Your task to perform on an android device: turn notification dots off Image 0: 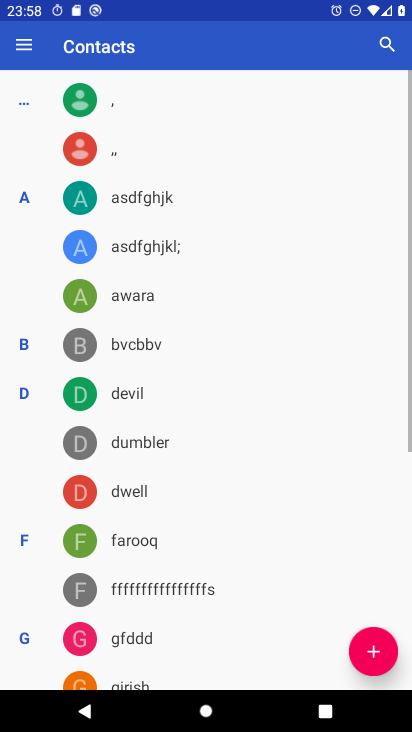
Step 0: press home button
Your task to perform on an android device: turn notification dots off Image 1: 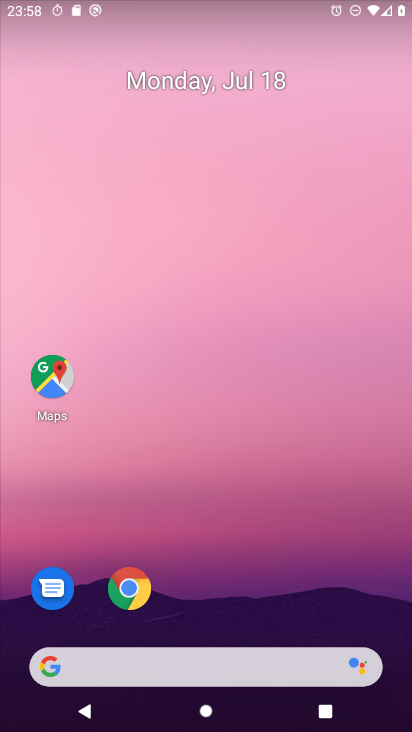
Step 1: drag from (211, 663) to (352, 61)
Your task to perform on an android device: turn notification dots off Image 2: 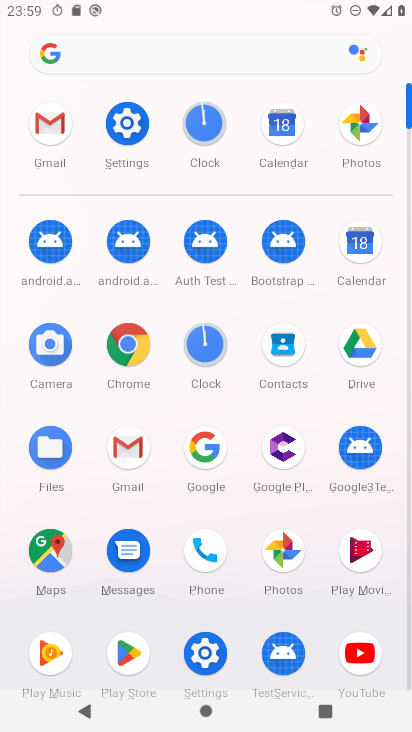
Step 2: click (123, 127)
Your task to perform on an android device: turn notification dots off Image 3: 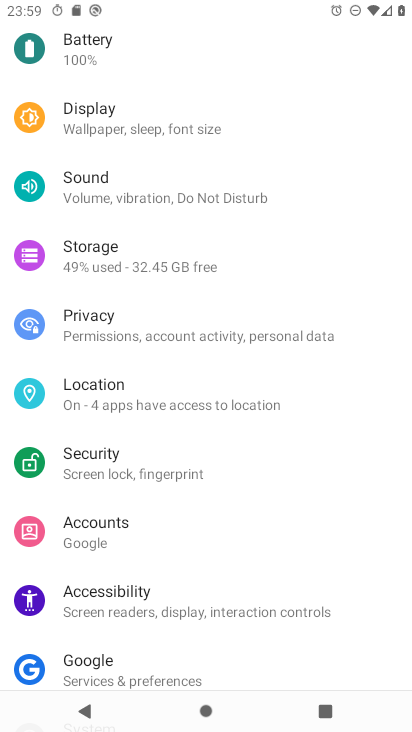
Step 3: drag from (261, 69) to (323, 615)
Your task to perform on an android device: turn notification dots off Image 4: 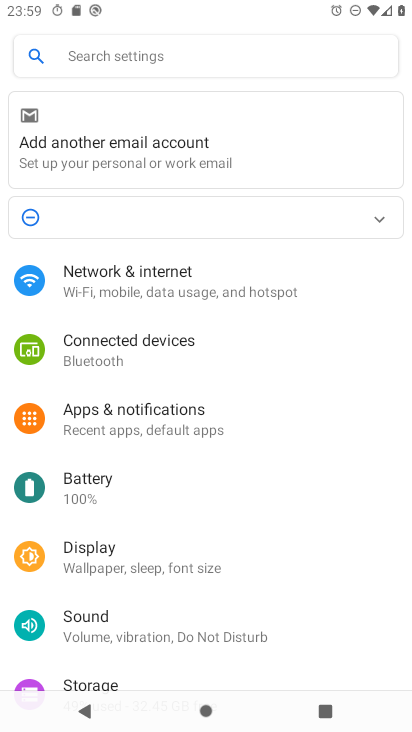
Step 4: click (143, 416)
Your task to perform on an android device: turn notification dots off Image 5: 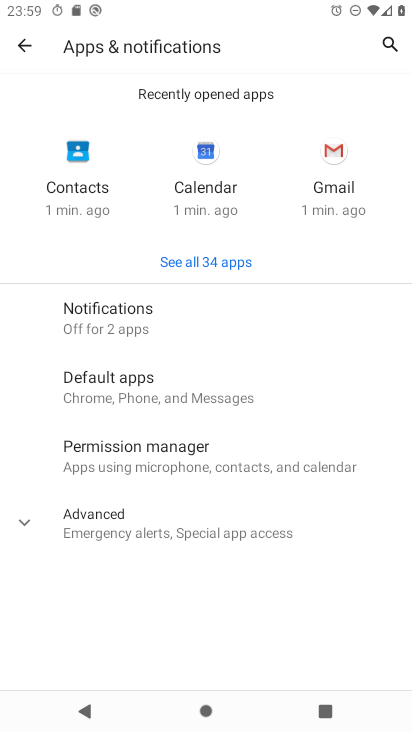
Step 5: click (122, 517)
Your task to perform on an android device: turn notification dots off Image 6: 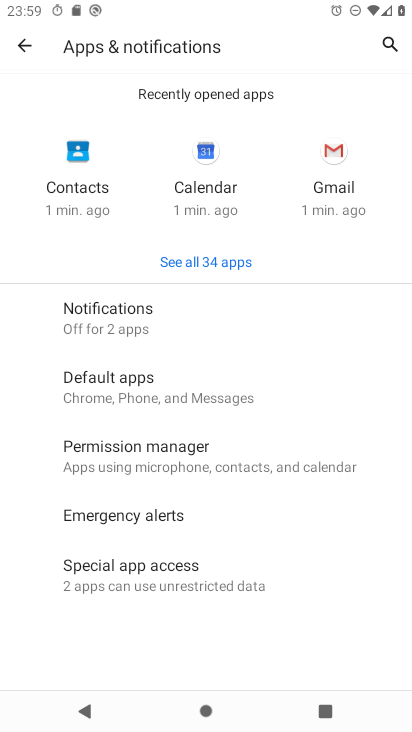
Step 6: click (129, 310)
Your task to perform on an android device: turn notification dots off Image 7: 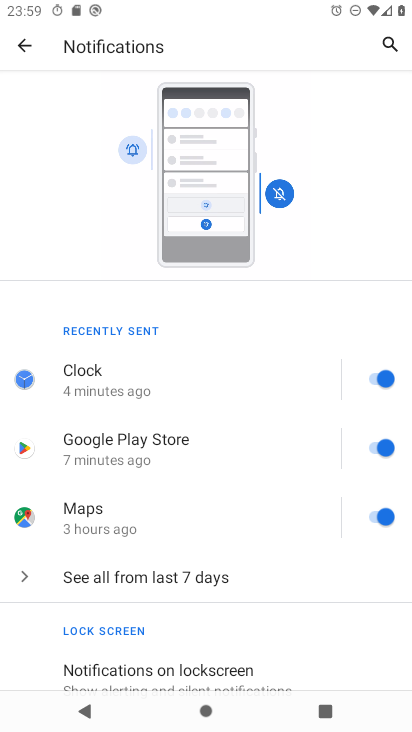
Step 7: drag from (246, 556) to (264, 175)
Your task to perform on an android device: turn notification dots off Image 8: 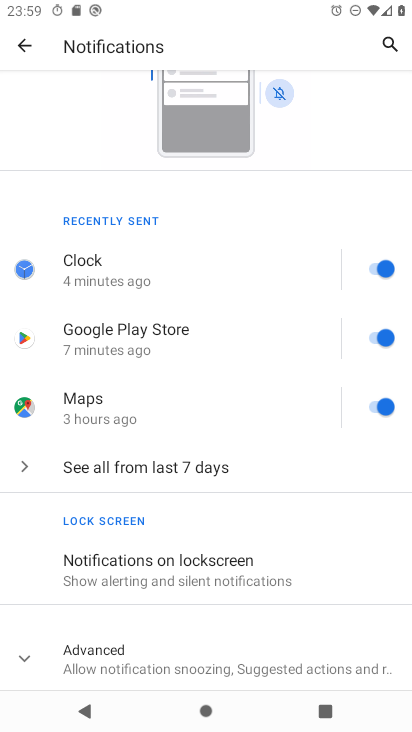
Step 8: drag from (136, 552) to (301, 88)
Your task to perform on an android device: turn notification dots off Image 9: 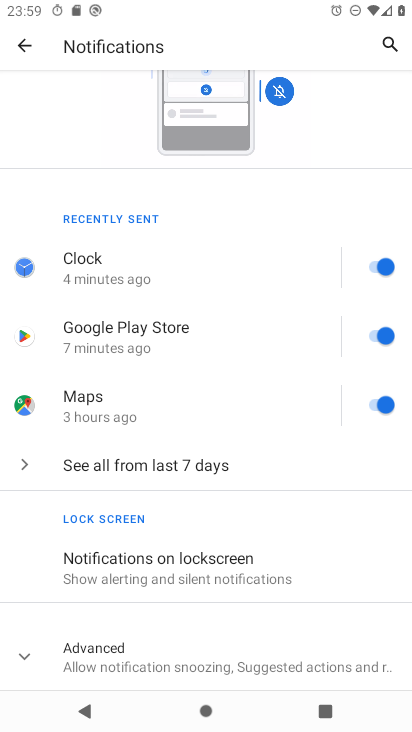
Step 9: click (107, 647)
Your task to perform on an android device: turn notification dots off Image 10: 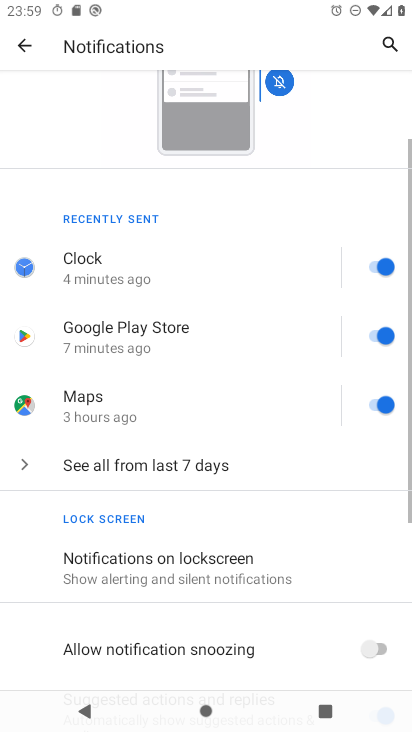
Step 10: drag from (217, 619) to (300, 179)
Your task to perform on an android device: turn notification dots off Image 11: 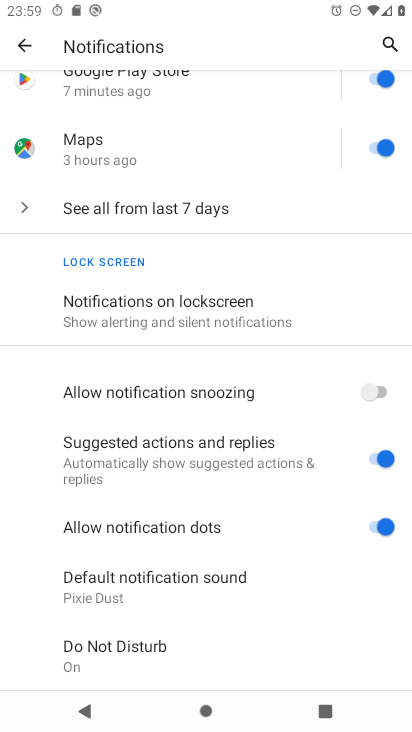
Step 11: click (383, 520)
Your task to perform on an android device: turn notification dots off Image 12: 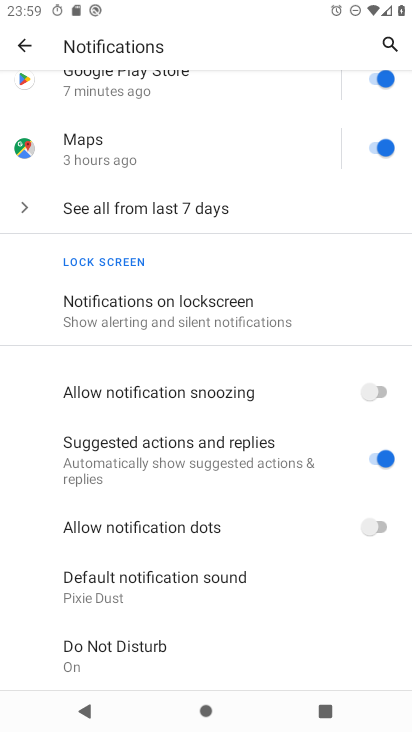
Step 12: task complete